Your task to perform on an android device: Open Amazon Image 0: 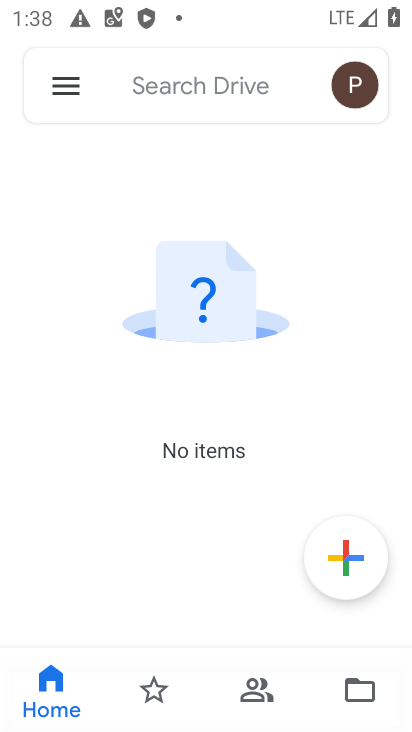
Step 0: press home button
Your task to perform on an android device: Open Amazon Image 1: 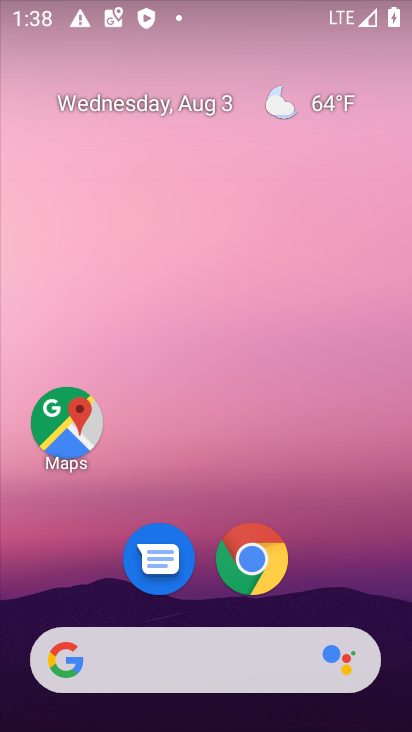
Step 1: click (250, 561)
Your task to perform on an android device: Open Amazon Image 2: 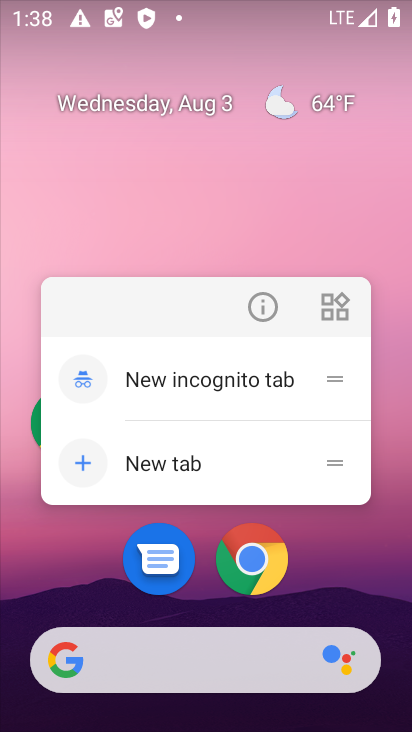
Step 2: click (229, 579)
Your task to perform on an android device: Open Amazon Image 3: 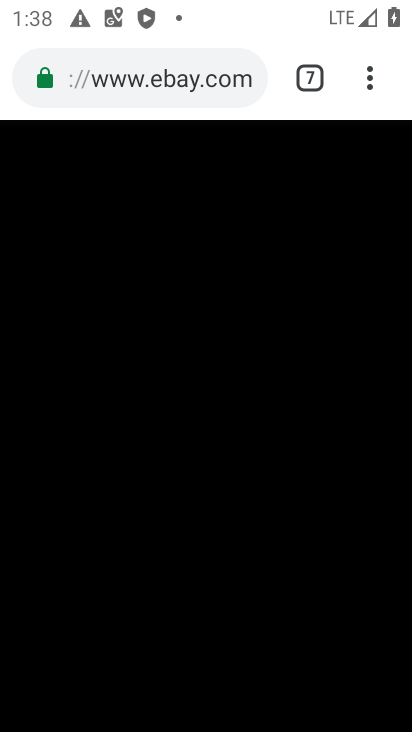
Step 3: click (366, 88)
Your task to perform on an android device: Open Amazon Image 4: 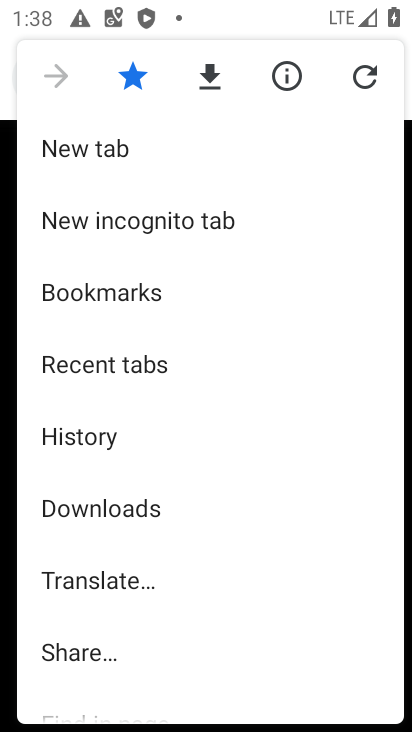
Step 4: click (78, 150)
Your task to perform on an android device: Open Amazon Image 5: 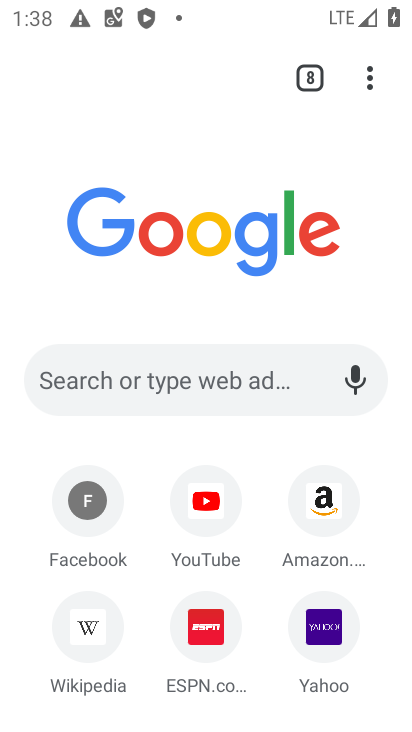
Step 5: click (323, 493)
Your task to perform on an android device: Open Amazon Image 6: 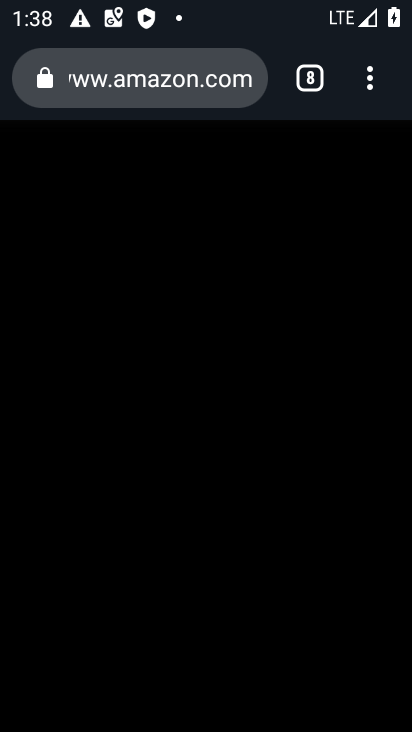
Step 6: task complete